Your task to perform on an android device: Go to Wikipedia Image 0: 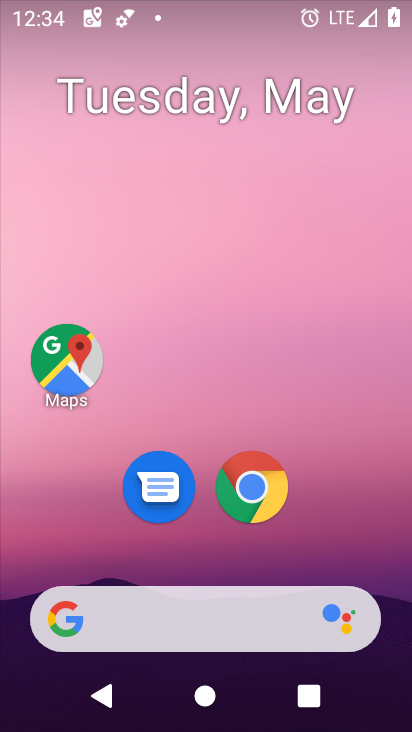
Step 0: click (269, 487)
Your task to perform on an android device: Go to Wikipedia Image 1: 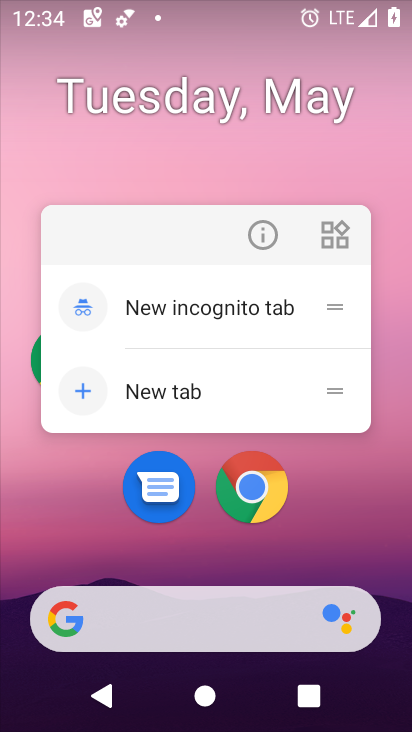
Step 1: click (259, 482)
Your task to perform on an android device: Go to Wikipedia Image 2: 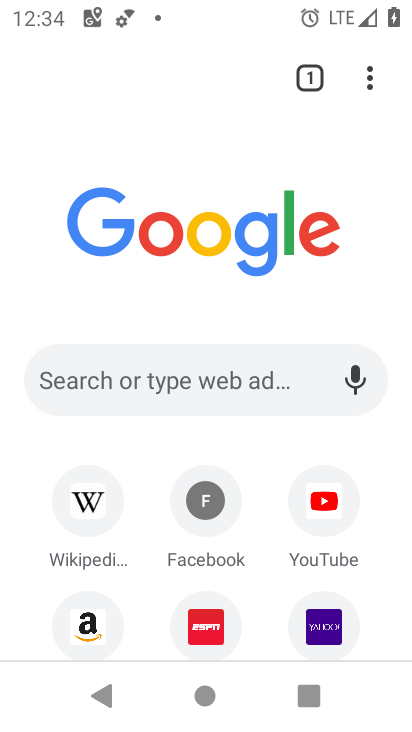
Step 2: click (81, 519)
Your task to perform on an android device: Go to Wikipedia Image 3: 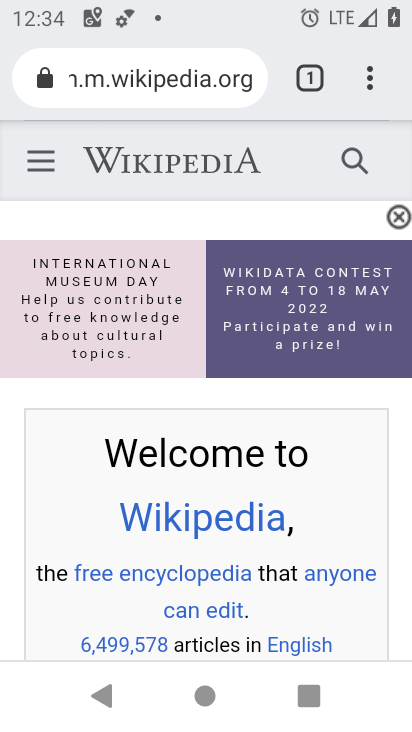
Step 3: task complete